Your task to perform on an android device: Is it going to rain today? Image 0: 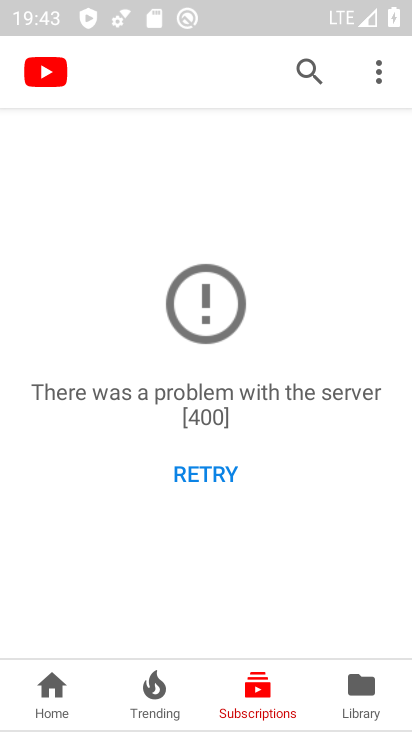
Step 0: press home button
Your task to perform on an android device: Is it going to rain today? Image 1: 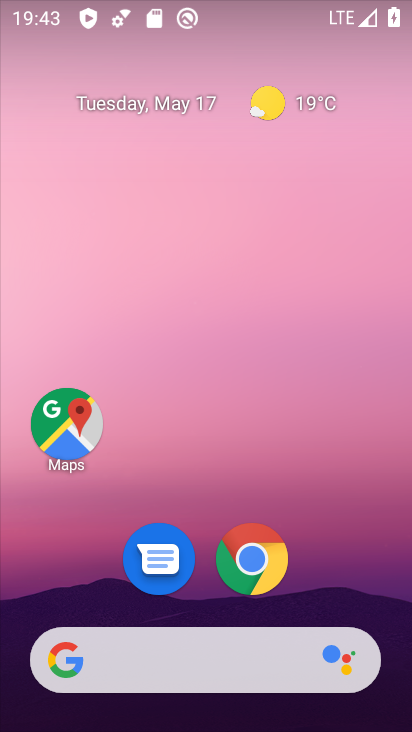
Step 1: drag from (207, 613) to (236, 142)
Your task to perform on an android device: Is it going to rain today? Image 2: 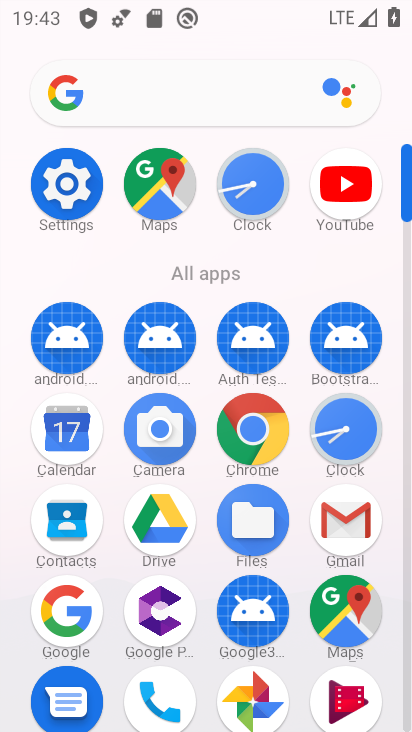
Step 2: click (204, 90)
Your task to perform on an android device: Is it going to rain today? Image 3: 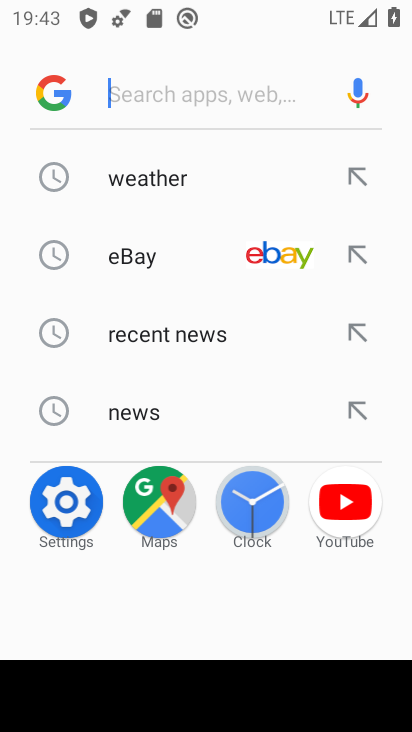
Step 3: type "rain today"
Your task to perform on an android device: Is it going to rain today? Image 4: 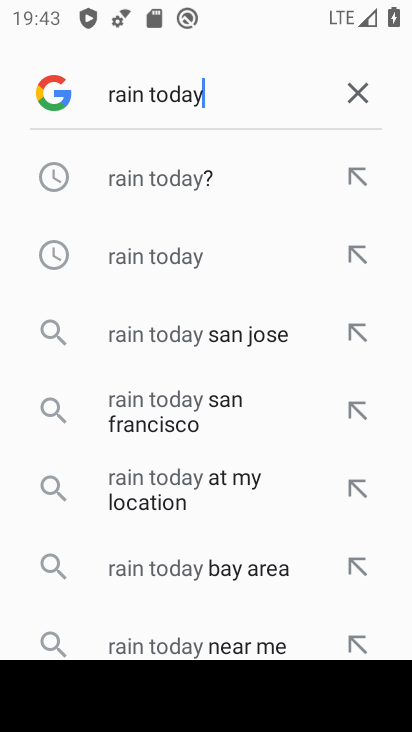
Step 4: click (158, 160)
Your task to perform on an android device: Is it going to rain today? Image 5: 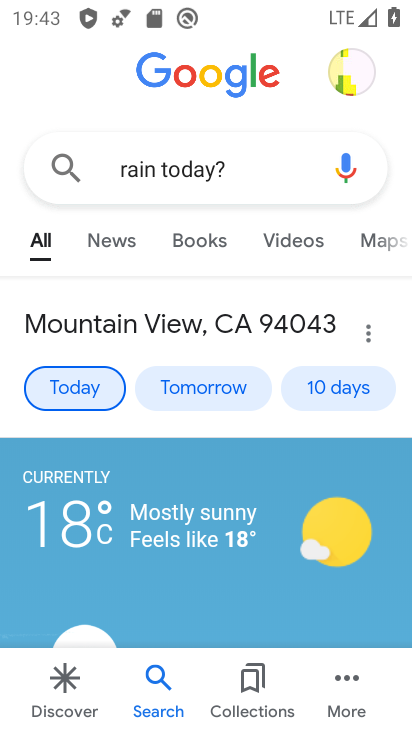
Step 5: task complete